Your task to perform on an android device: Go to wifi settings Image 0: 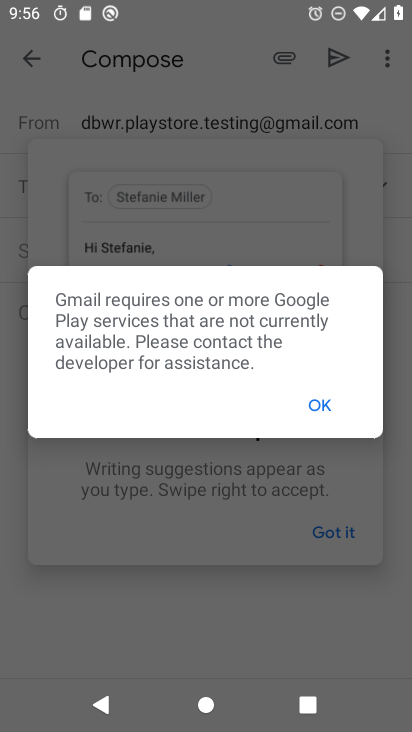
Step 0: press home button
Your task to perform on an android device: Go to wifi settings Image 1: 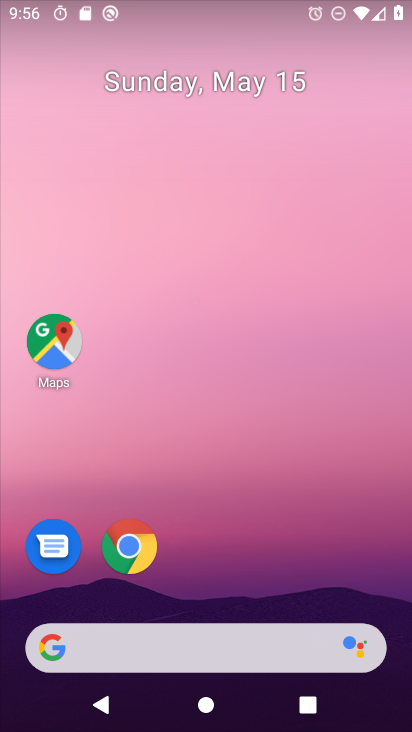
Step 1: drag from (265, 544) to (296, 48)
Your task to perform on an android device: Go to wifi settings Image 2: 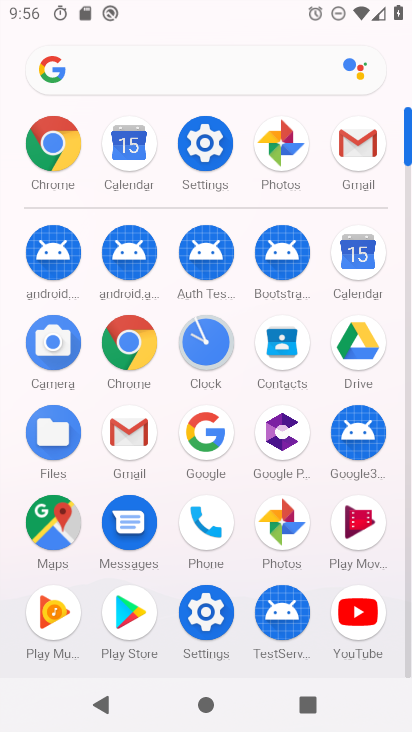
Step 2: click (217, 138)
Your task to perform on an android device: Go to wifi settings Image 3: 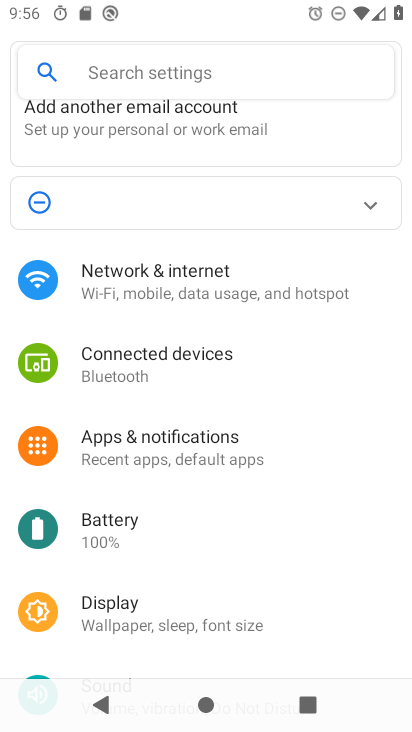
Step 3: click (220, 276)
Your task to perform on an android device: Go to wifi settings Image 4: 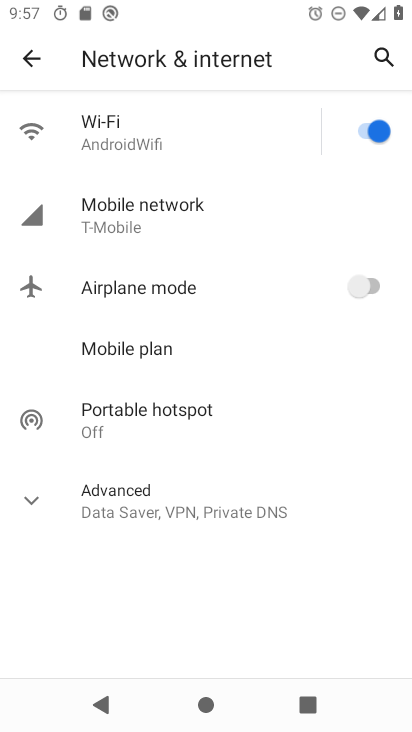
Step 4: click (214, 127)
Your task to perform on an android device: Go to wifi settings Image 5: 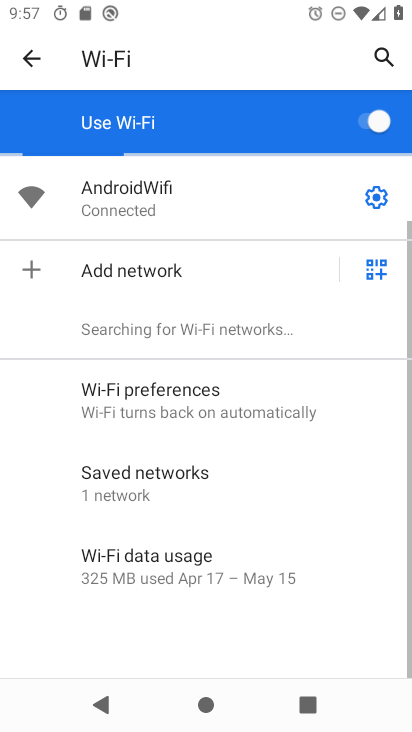
Step 5: task complete